Your task to perform on an android device: Go to display settings Image 0: 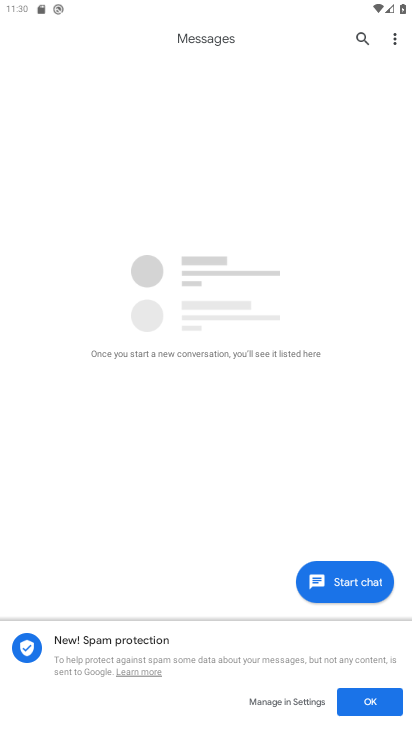
Step 0: press home button
Your task to perform on an android device: Go to display settings Image 1: 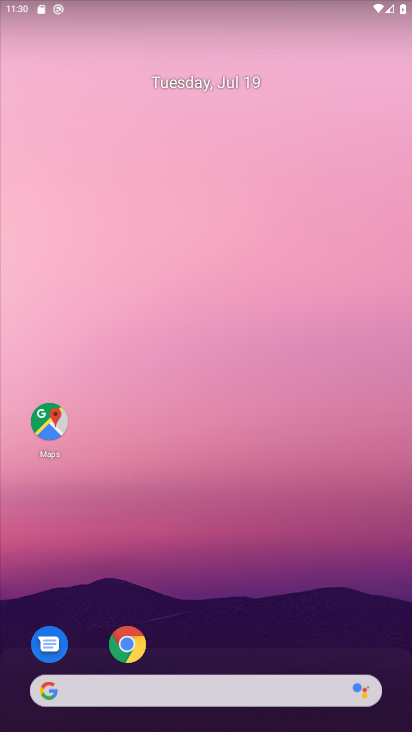
Step 1: drag from (225, 634) to (253, 241)
Your task to perform on an android device: Go to display settings Image 2: 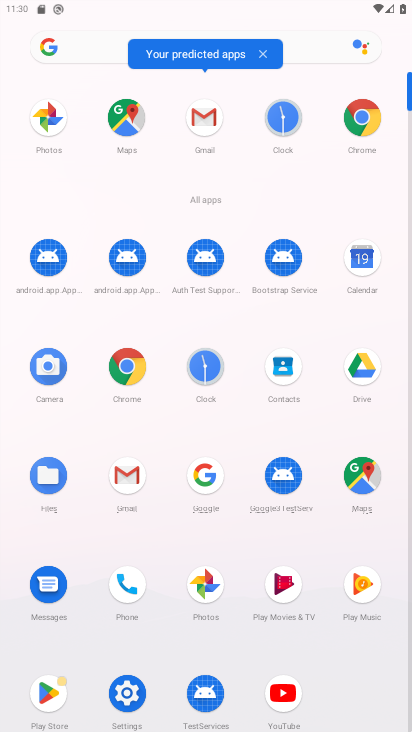
Step 2: click (129, 689)
Your task to perform on an android device: Go to display settings Image 3: 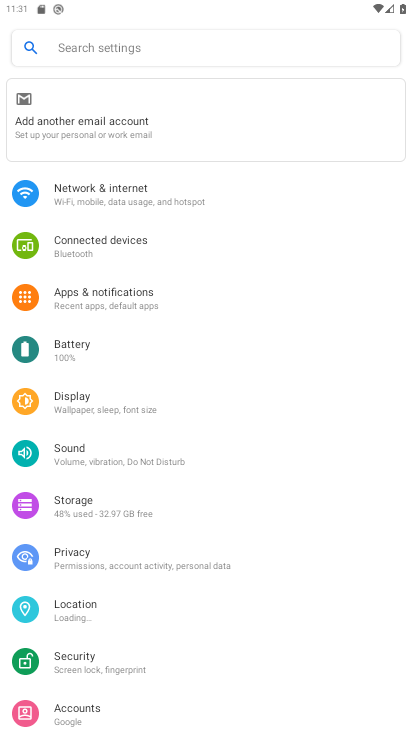
Step 3: click (73, 405)
Your task to perform on an android device: Go to display settings Image 4: 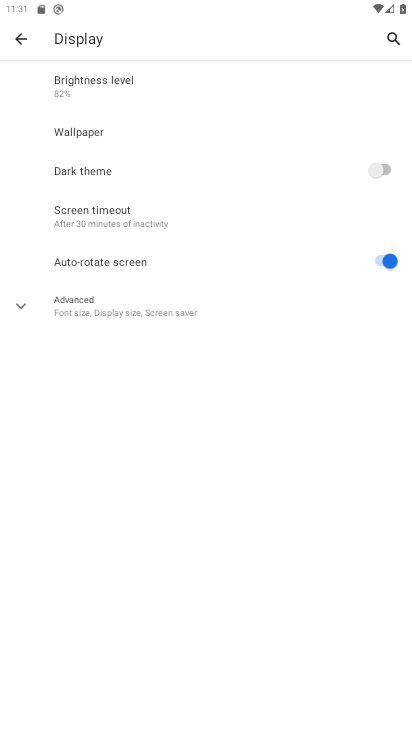
Step 4: task complete